Your task to perform on an android device: open sync settings in chrome Image 0: 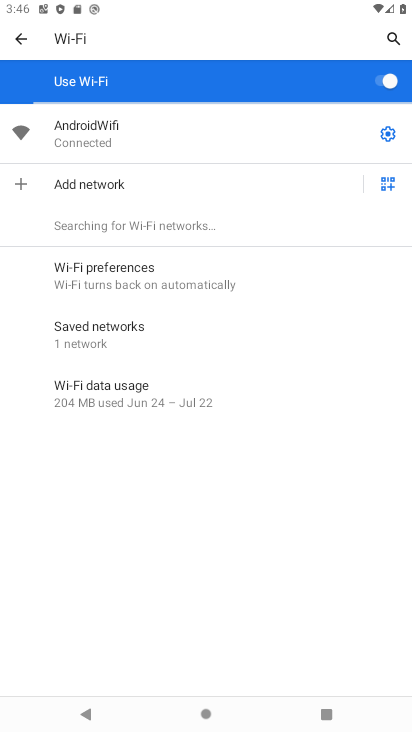
Step 0: press home button
Your task to perform on an android device: open sync settings in chrome Image 1: 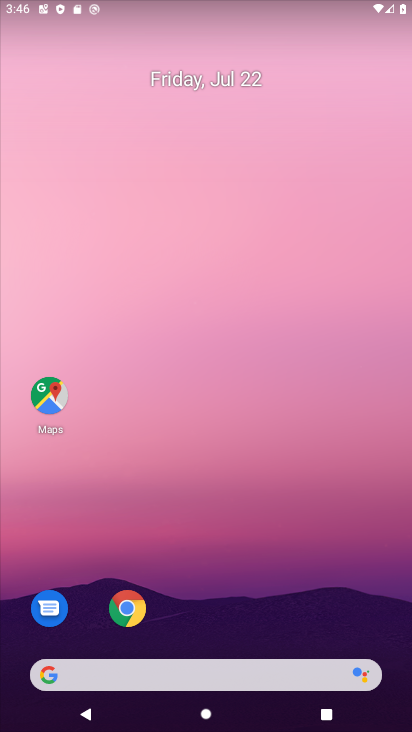
Step 1: drag from (247, 713) to (198, 118)
Your task to perform on an android device: open sync settings in chrome Image 2: 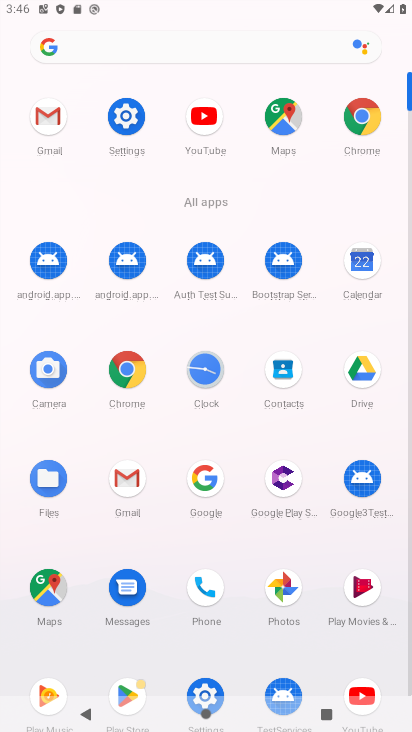
Step 2: click (125, 367)
Your task to perform on an android device: open sync settings in chrome Image 3: 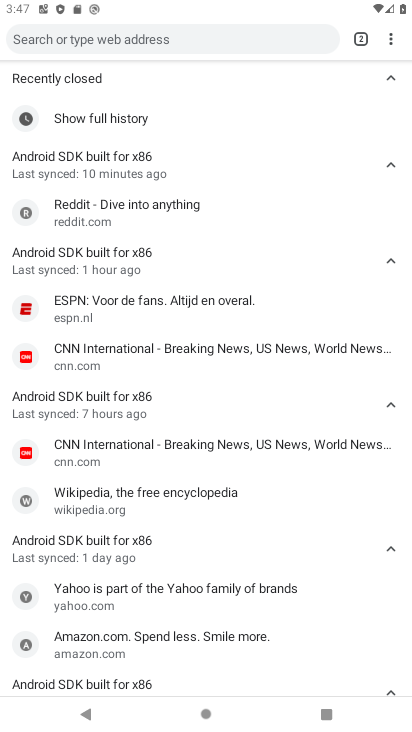
Step 3: click (389, 39)
Your task to perform on an android device: open sync settings in chrome Image 4: 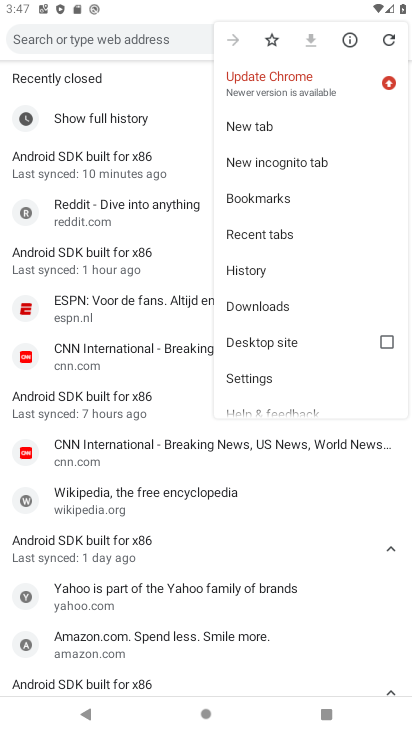
Step 4: click (254, 377)
Your task to perform on an android device: open sync settings in chrome Image 5: 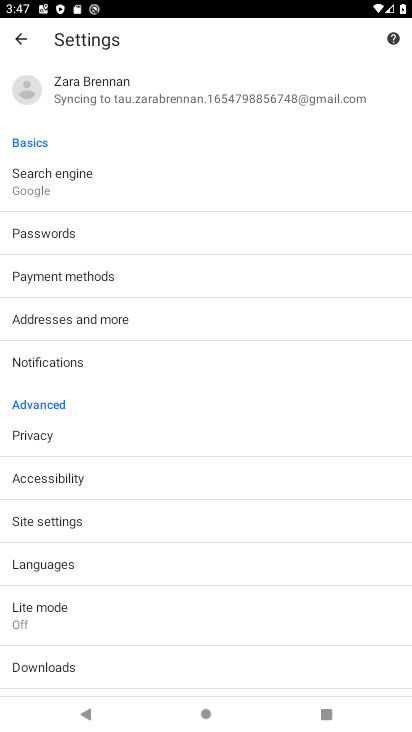
Step 5: click (55, 521)
Your task to perform on an android device: open sync settings in chrome Image 6: 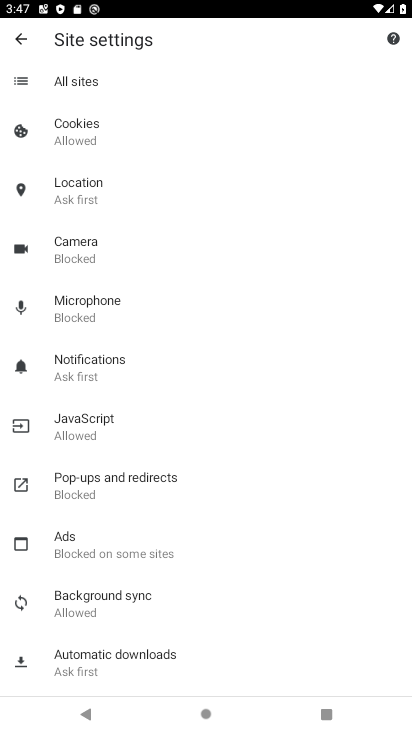
Step 6: drag from (117, 618) to (118, 314)
Your task to perform on an android device: open sync settings in chrome Image 7: 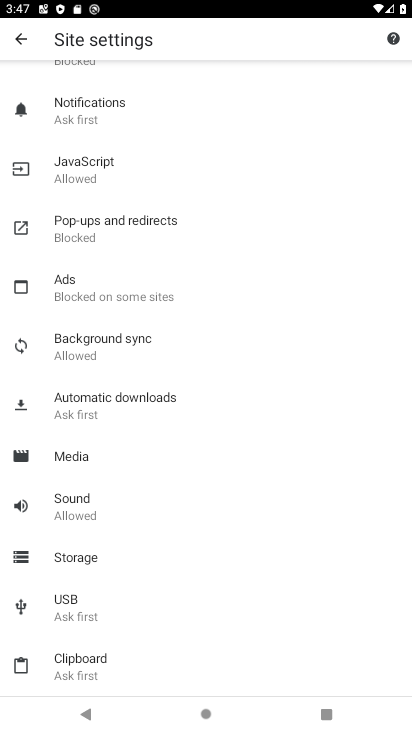
Step 7: click (97, 345)
Your task to perform on an android device: open sync settings in chrome Image 8: 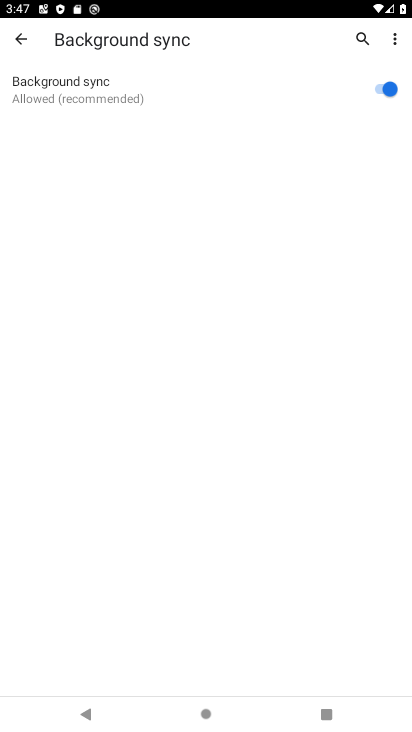
Step 8: task complete